Your task to perform on an android device: change text size in settings app Image 0: 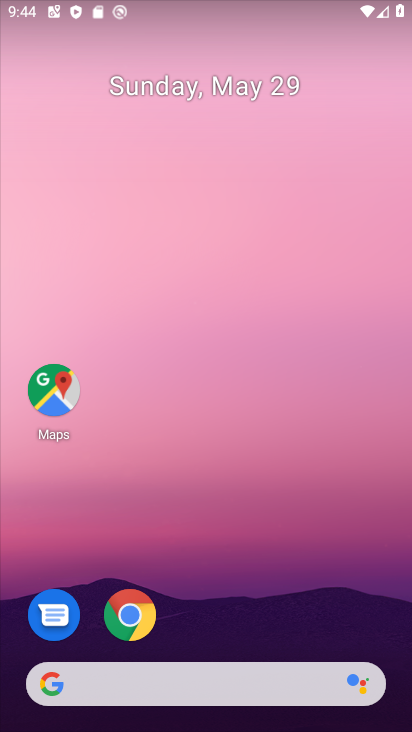
Step 0: drag from (194, 643) to (94, 6)
Your task to perform on an android device: change text size in settings app Image 1: 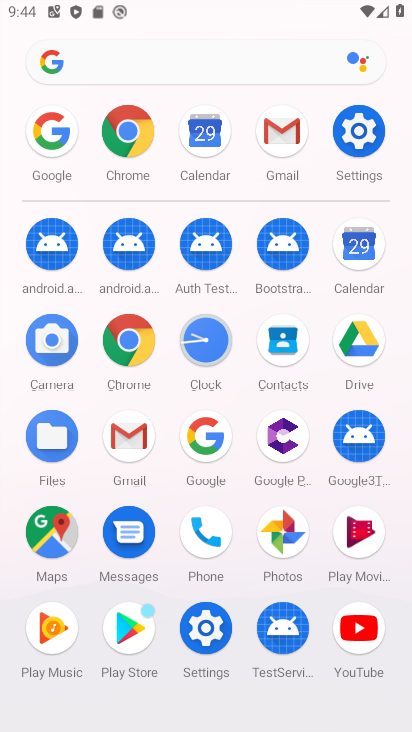
Step 1: click (342, 139)
Your task to perform on an android device: change text size in settings app Image 2: 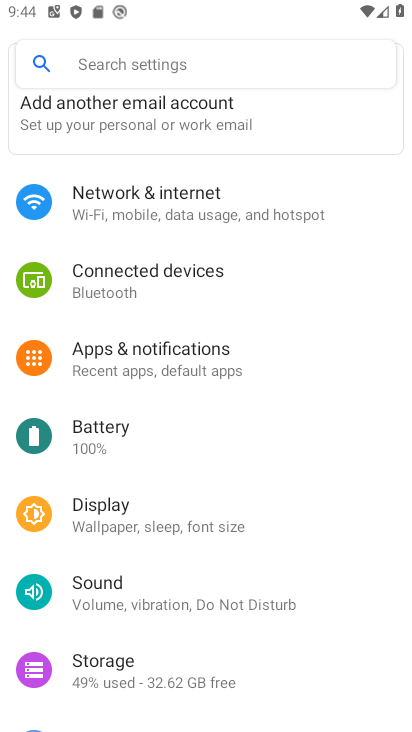
Step 2: click (130, 523)
Your task to perform on an android device: change text size in settings app Image 3: 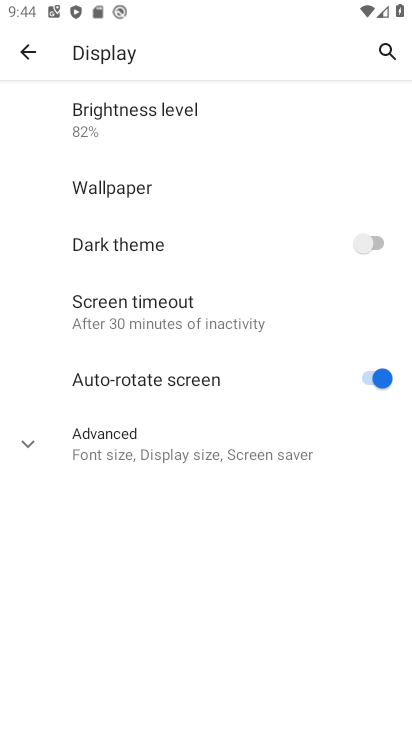
Step 3: click (168, 437)
Your task to perform on an android device: change text size in settings app Image 4: 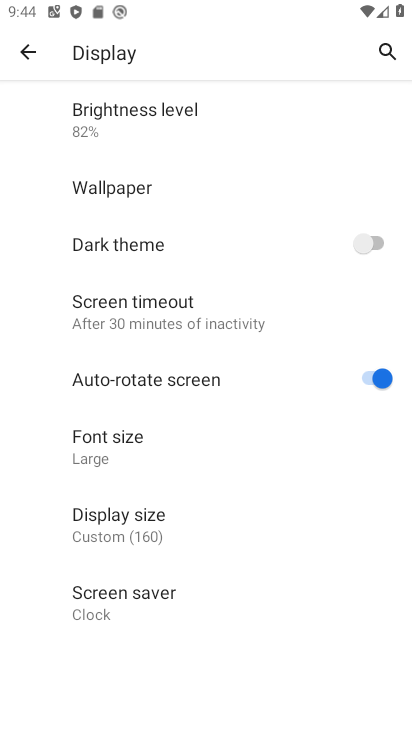
Step 4: click (146, 450)
Your task to perform on an android device: change text size in settings app Image 5: 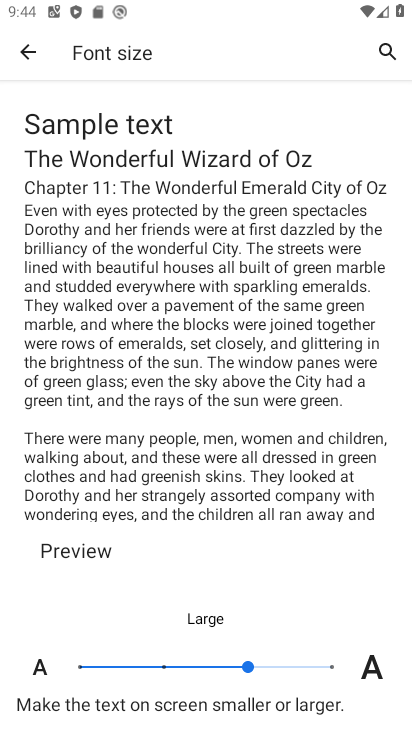
Step 5: click (161, 670)
Your task to perform on an android device: change text size in settings app Image 6: 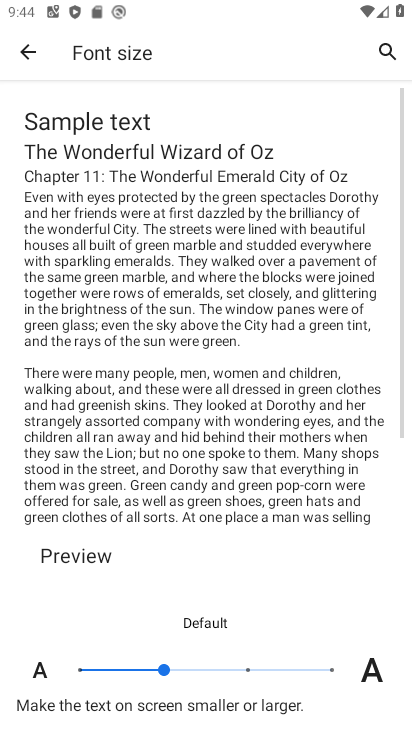
Step 6: task complete